Your task to perform on an android device: Search for "razer huntsman" on target.com, select the first entry, and add it to the cart. Image 0: 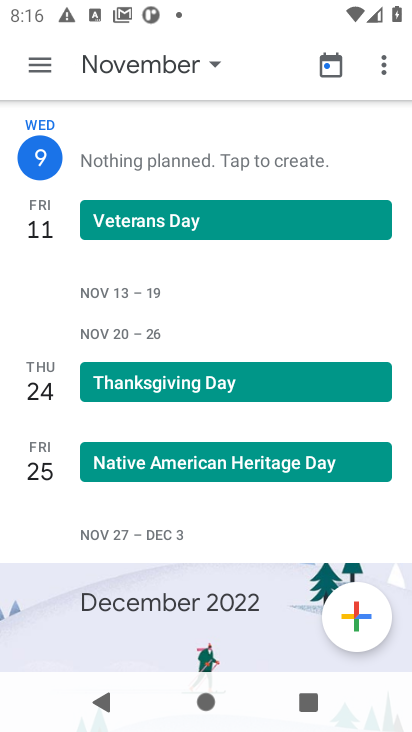
Step 0: press home button
Your task to perform on an android device: Search for "razer huntsman" on target.com, select the first entry, and add it to the cart. Image 1: 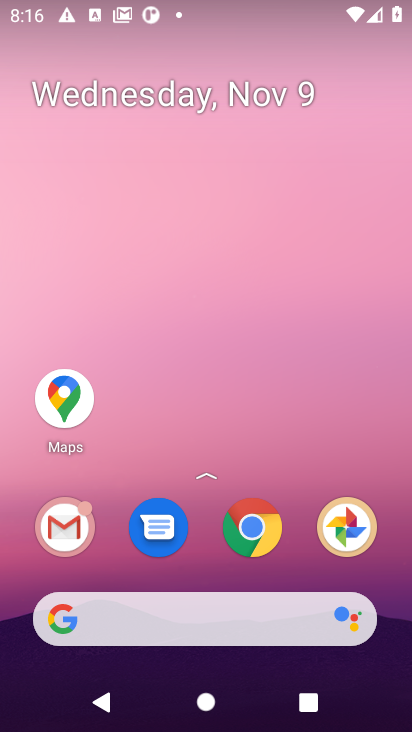
Step 1: click (256, 528)
Your task to perform on an android device: Search for "razer huntsman" on target.com, select the first entry, and add it to the cart. Image 2: 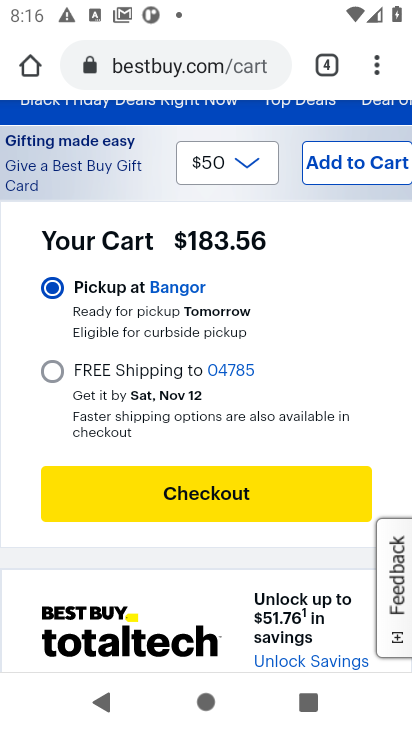
Step 2: click (195, 70)
Your task to perform on an android device: Search for "razer huntsman" on target.com, select the first entry, and add it to the cart. Image 3: 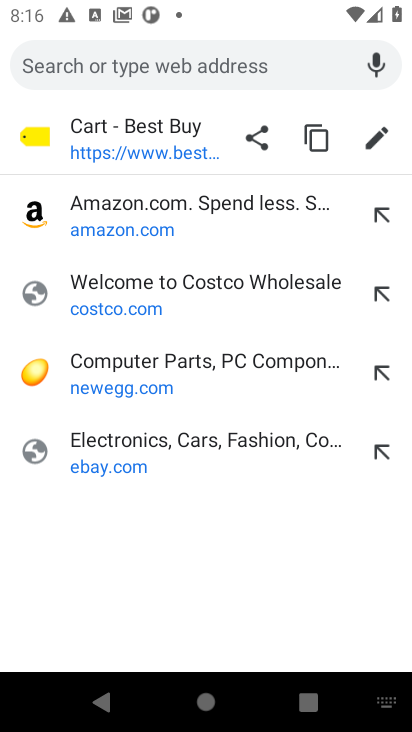
Step 3: type "target.com"
Your task to perform on an android device: Search for "razer huntsman" on target.com, select the first entry, and add it to the cart. Image 4: 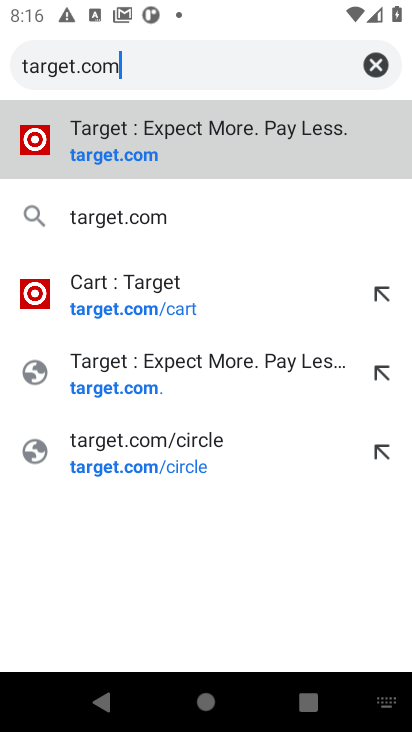
Step 4: click (154, 150)
Your task to perform on an android device: Search for "razer huntsman" on target.com, select the first entry, and add it to the cart. Image 5: 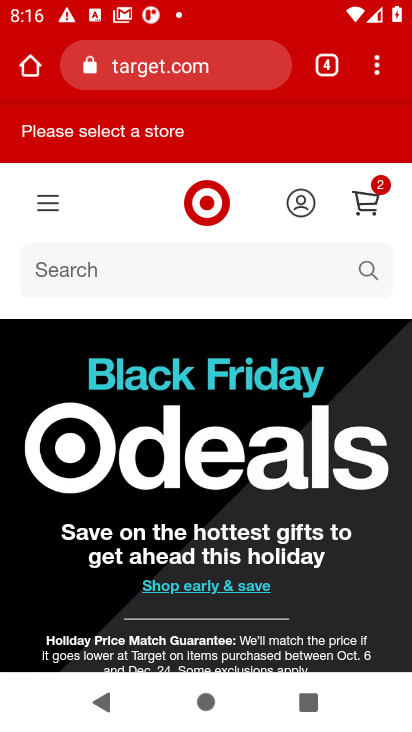
Step 5: click (363, 271)
Your task to perform on an android device: Search for "razer huntsman" on target.com, select the first entry, and add it to the cart. Image 6: 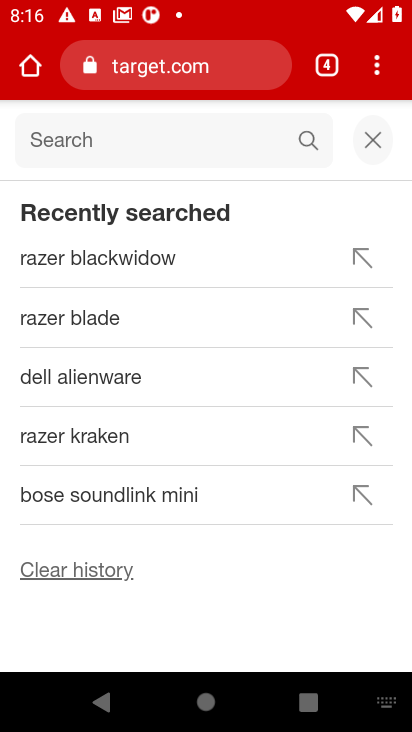
Step 6: type "razer huntsman"
Your task to perform on an android device: Search for "razer huntsman" on target.com, select the first entry, and add it to the cart. Image 7: 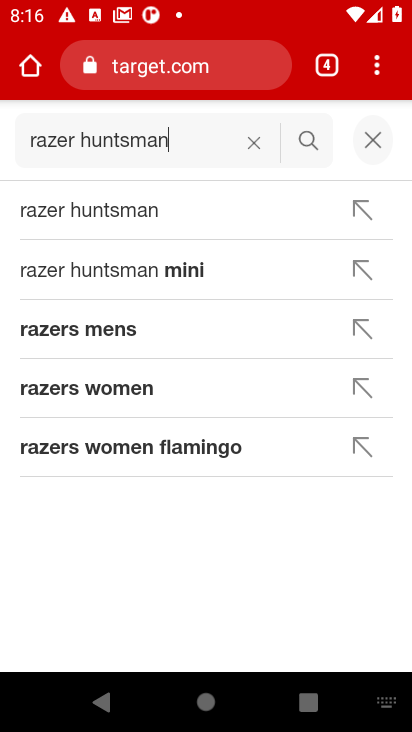
Step 7: click (119, 217)
Your task to perform on an android device: Search for "razer huntsman" on target.com, select the first entry, and add it to the cart. Image 8: 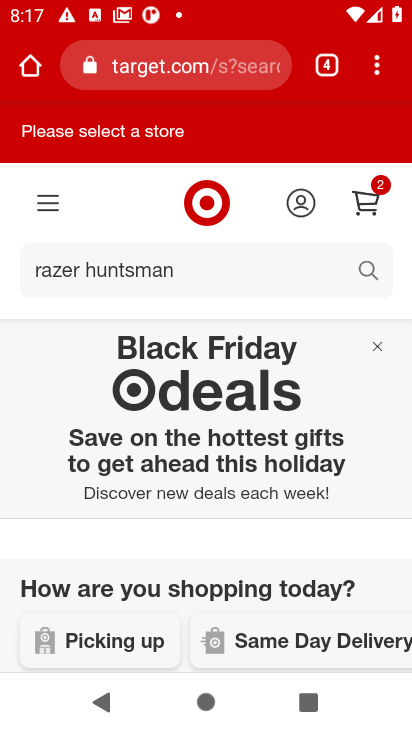
Step 8: task complete